Your task to perform on an android device: Who is the president of France? Image 0: 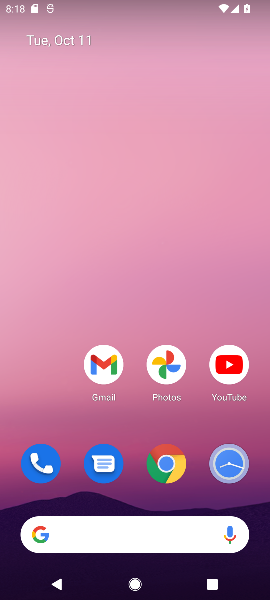
Step 0: click (122, 173)
Your task to perform on an android device: Who is the president of France? Image 1: 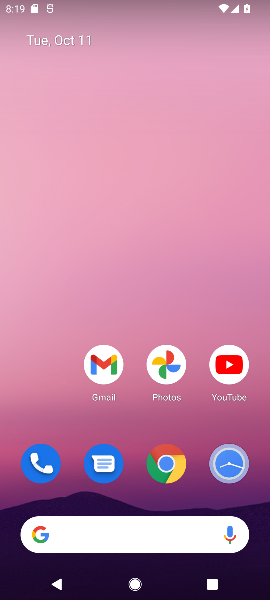
Step 1: drag from (116, 525) to (114, 166)
Your task to perform on an android device: Who is the president of France? Image 2: 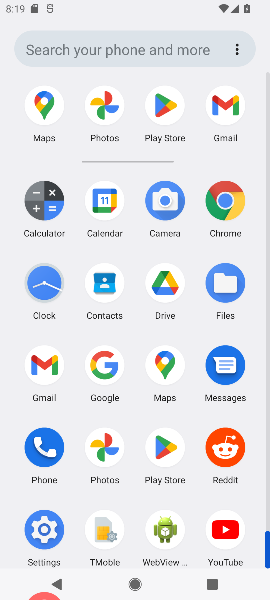
Step 2: click (98, 358)
Your task to perform on an android device: Who is the president of France? Image 3: 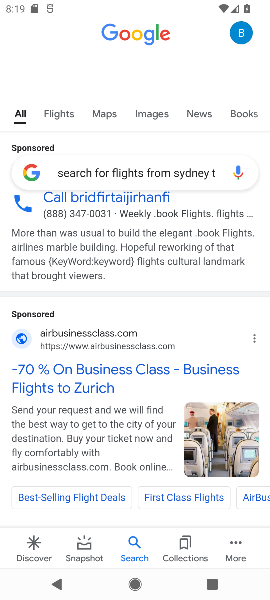
Step 3: click (90, 170)
Your task to perform on an android device: Who is the president of France? Image 4: 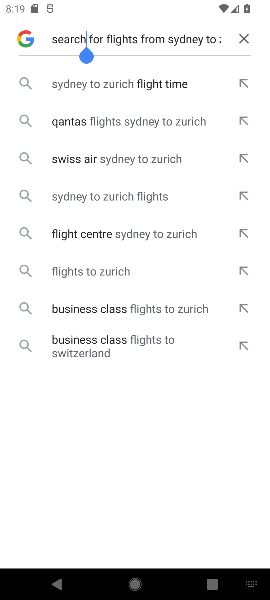
Step 4: click (241, 43)
Your task to perform on an android device: Who is the president of France? Image 5: 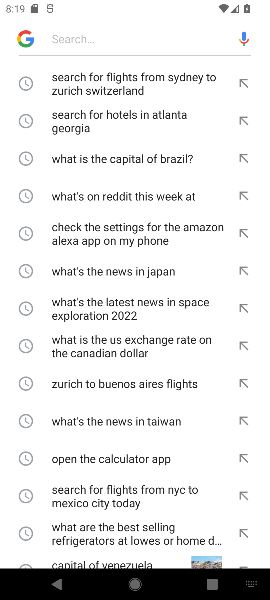
Step 5: click (144, 23)
Your task to perform on an android device: Who is the president of France? Image 6: 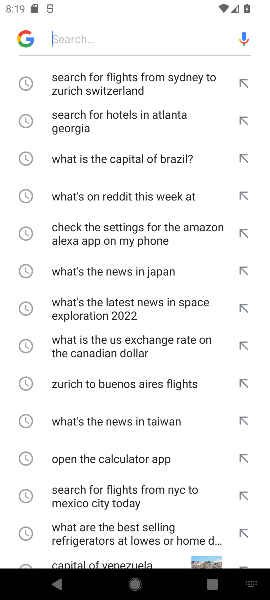
Step 6: click (148, 36)
Your task to perform on an android device: Who is the president of France? Image 7: 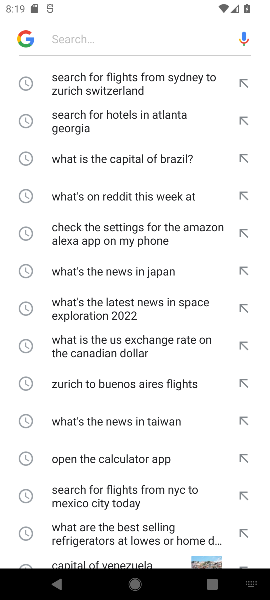
Step 7: click (148, 36)
Your task to perform on an android device: Who is the president of France? Image 8: 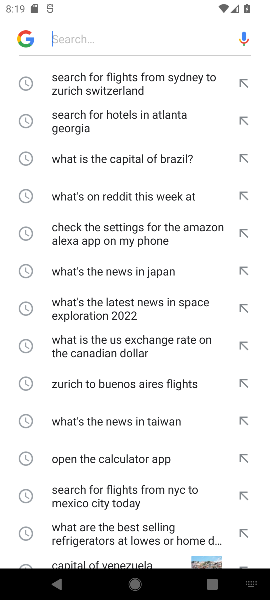
Step 8: type "Who is the president of France? "
Your task to perform on an android device: Who is the president of France? Image 9: 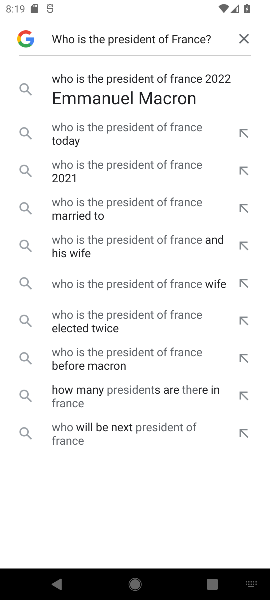
Step 9: click (115, 81)
Your task to perform on an android device: Who is the president of France? Image 10: 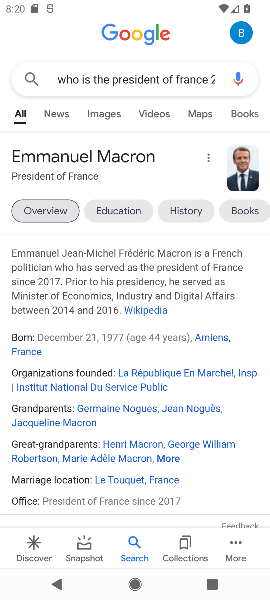
Step 10: task complete